Your task to perform on an android device: Open Google Chrome Image 0: 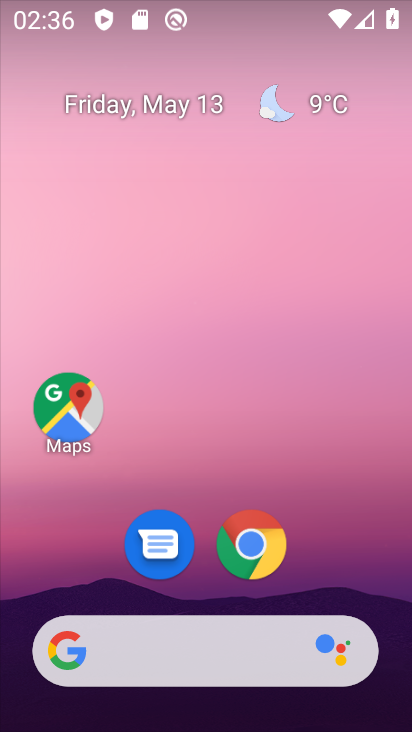
Step 0: drag from (320, 576) to (223, 3)
Your task to perform on an android device: Open Google Chrome Image 1: 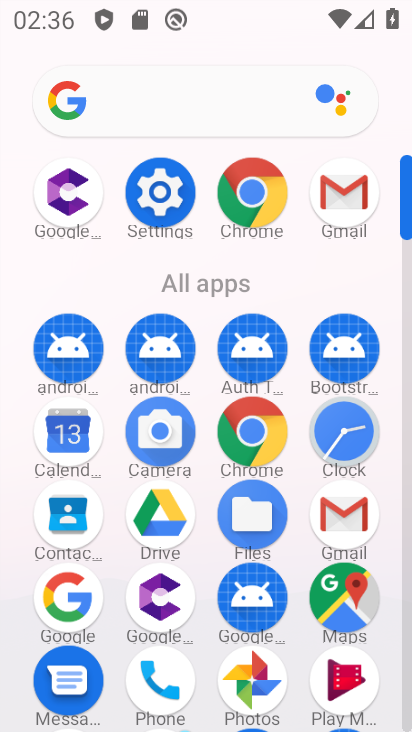
Step 1: drag from (15, 566) to (14, 263)
Your task to perform on an android device: Open Google Chrome Image 2: 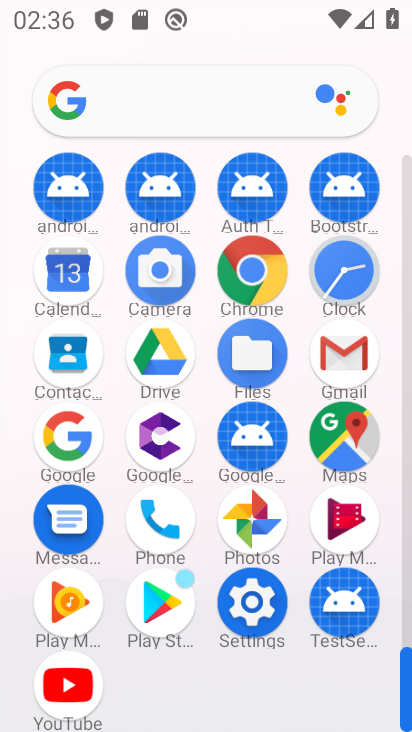
Step 2: click (253, 265)
Your task to perform on an android device: Open Google Chrome Image 3: 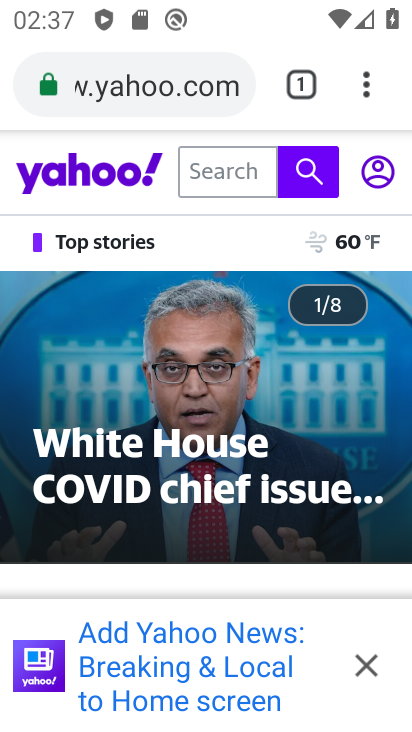
Step 3: task complete